Your task to perform on an android device: Is it going to rain tomorrow? Image 0: 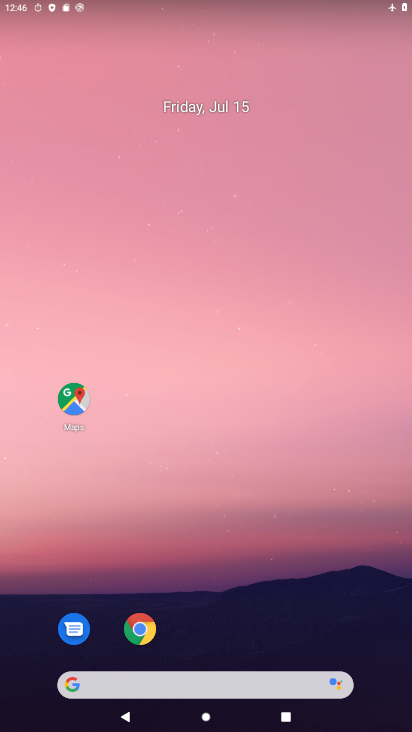
Step 0: drag from (213, 627) to (213, 116)
Your task to perform on an android device: Is it going to rain tomorrow? Image 1: 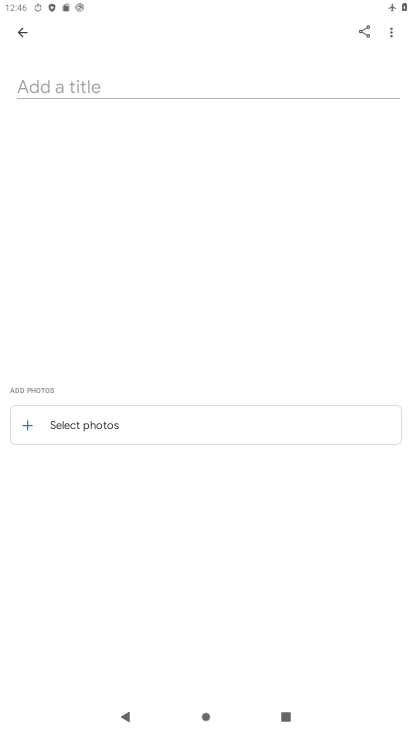
Step 1: press home button
Your task to perform on an android device: Is it going to rain tomorrow? Image 2: 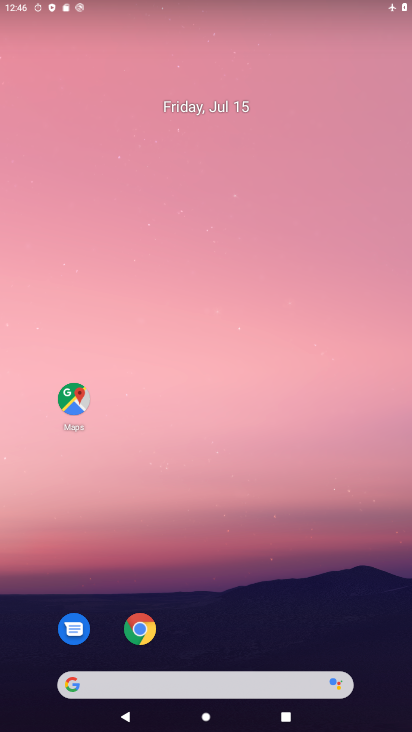
Step 2: drag from (218, 656) to (230, 122)
Your task to perform on an android device: Is it going to rain tomorrow? Image 3: 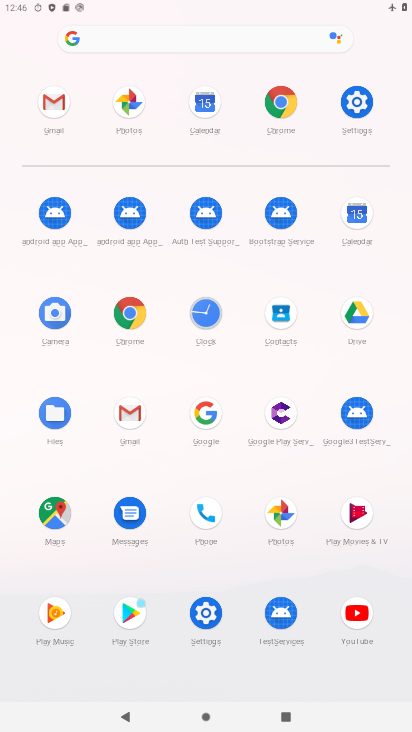
Step 3: click (205, 39)
Your task to perform on an android device: Is it going to rain tomorrow? Image 4: 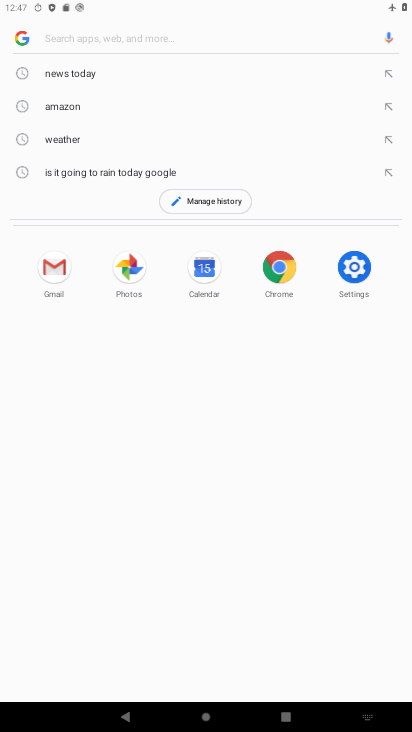
Step 4: type "tomorrow"
Your task to perform on an android device: Is it going to rain tomorrow? Image 5: 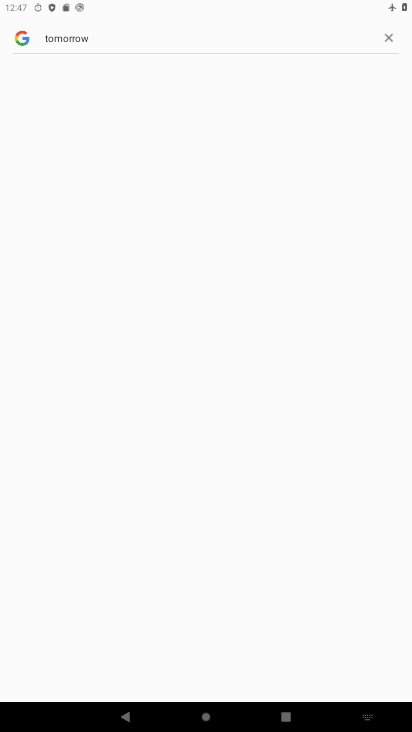
Step 5: click (141, 95)
Your task to perform on an android device: Is it going to rain tomorrow? Image 6: 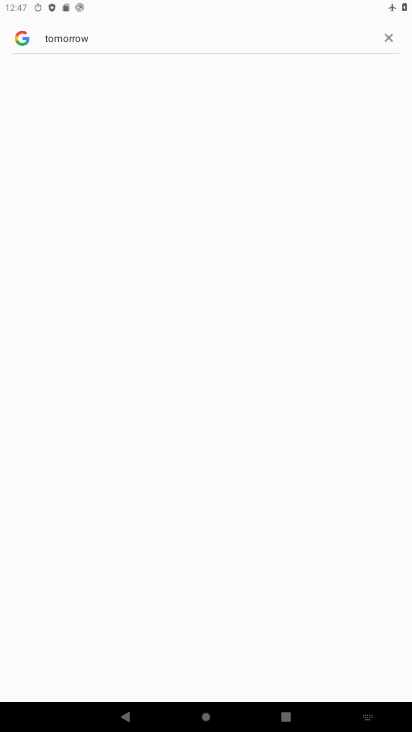
Step 6: task complete